Your task to perform on an android device: turn off notifications in google photos Image 0: 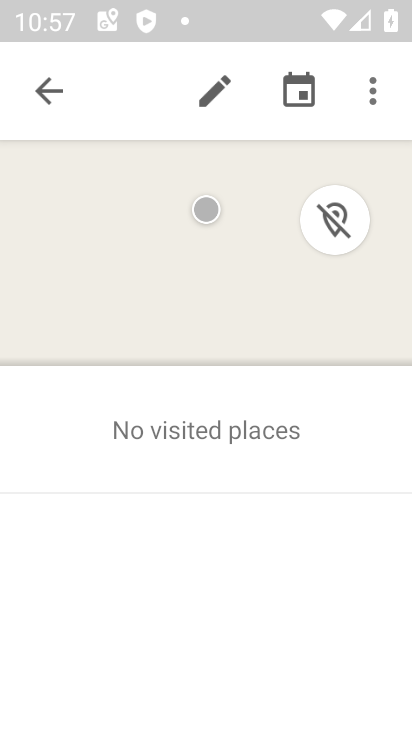
Step 0: press home button
Your task to perform on an android device: turn off notifications in google photos Image 1: 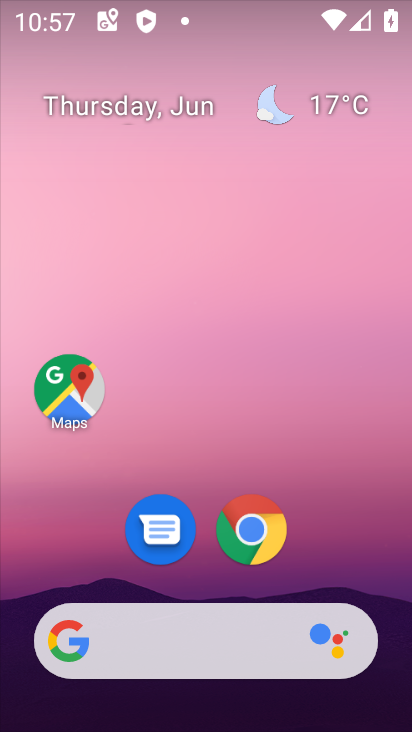
Step 1: drag from (383, 566) to (52, 17)
Your task to perform on an android device: turn off notifications in google photos Image 2: 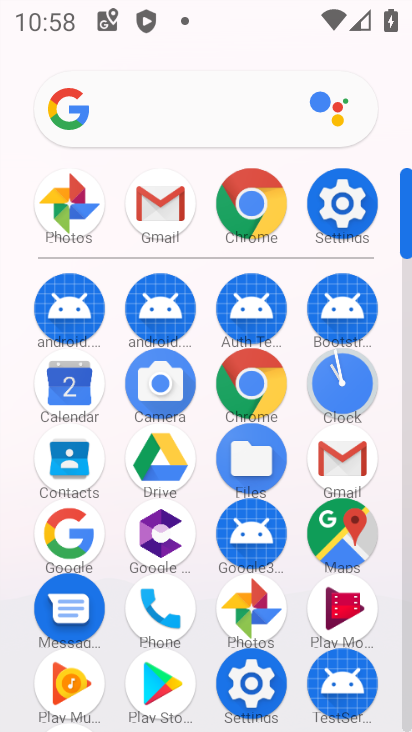
Step 2: click (242, 611)
Your task to perform on an android device: turn off notifications in google photos Image 3: 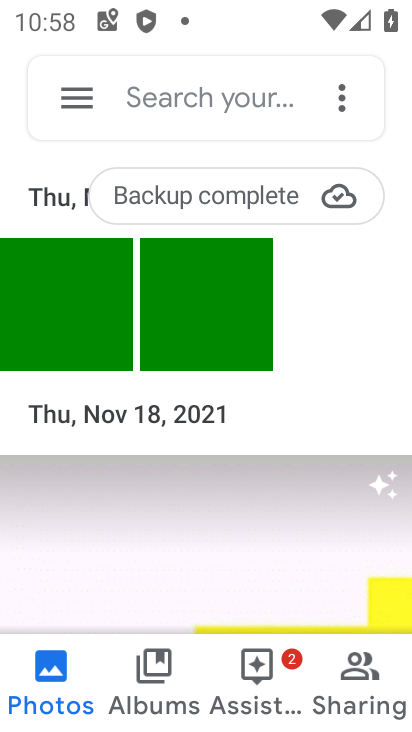
Step 3: click (64, 106)
Your task to perform on an android device: turn off notifications in google photos Image 4: 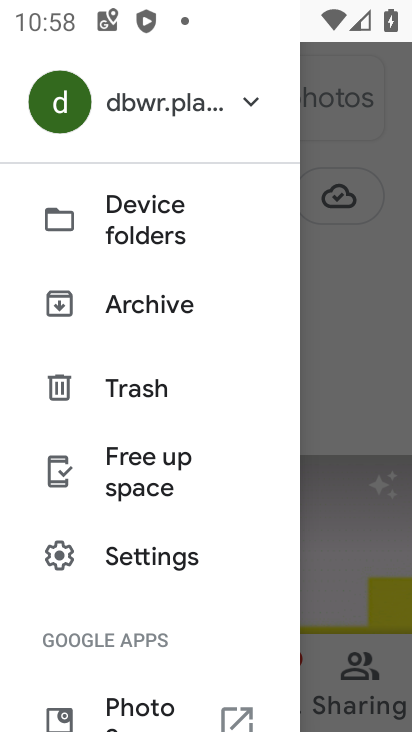
Step 4: click (161, 547)
Your task to perform on an android device: turn off notifications in google photos Image 5: 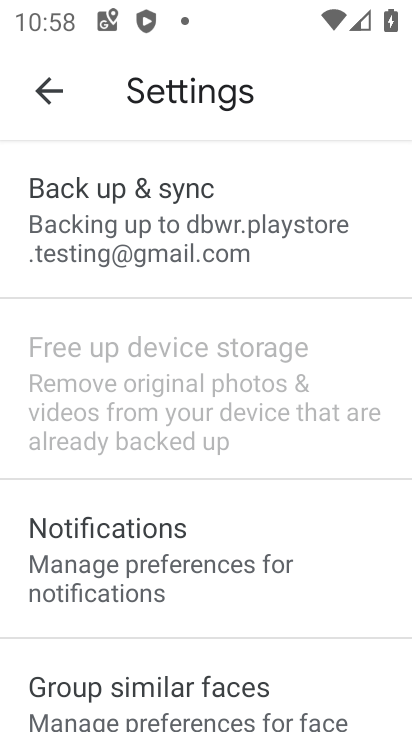
Step 5: click (118, 602)
Your task to perform on an android device: turn off notifications in google photos Image 6: 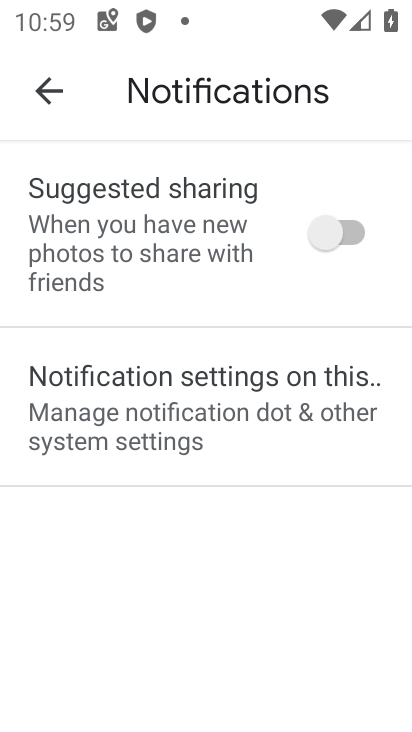
Step 6: click (323, 396)
Your task to perform on an android device: turn off notifications in google photos Image 7: 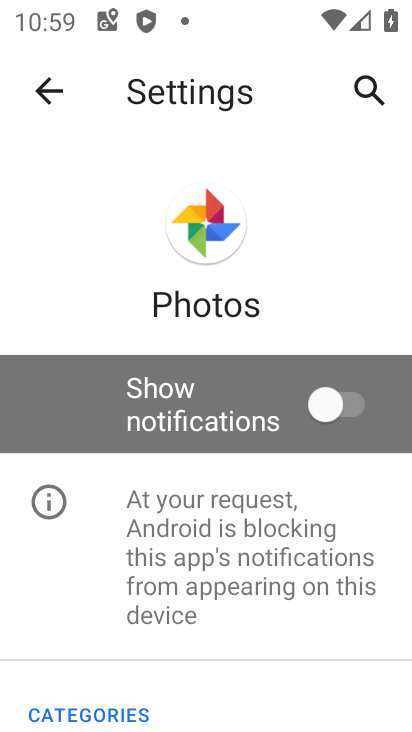
Step 7: task complete